Your task to perform on an android device: Go to notification settings Image 0: 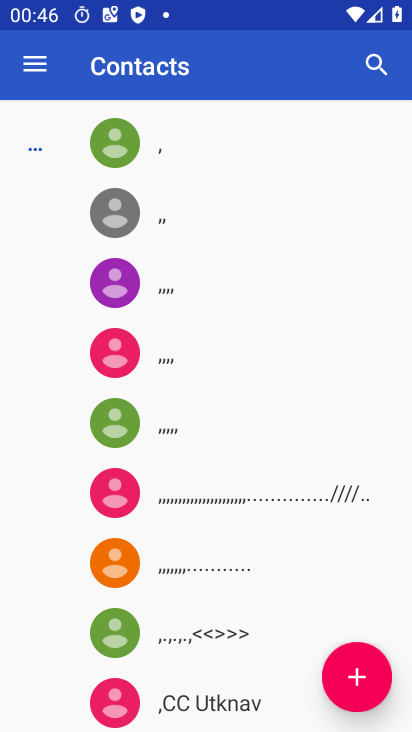
Step 0: press home button
Your task to perform on an android device: Go to notification settings Image 1: 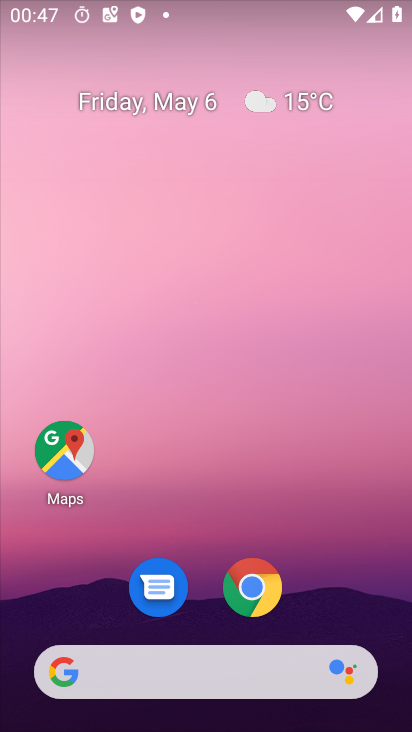
Step 1: drag from (383, 640) to (353, 181)
Your task to perform on an android device: Go to notification settings Image 2: 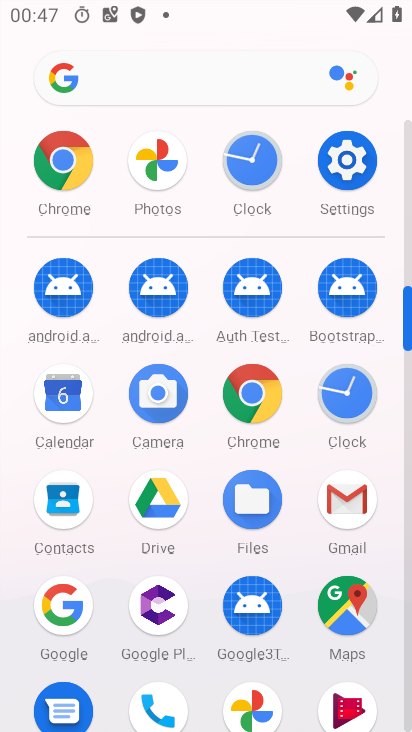
Step 2: click (356, 164)
Your task to perform on an android device: Go to notification settings Image 3: 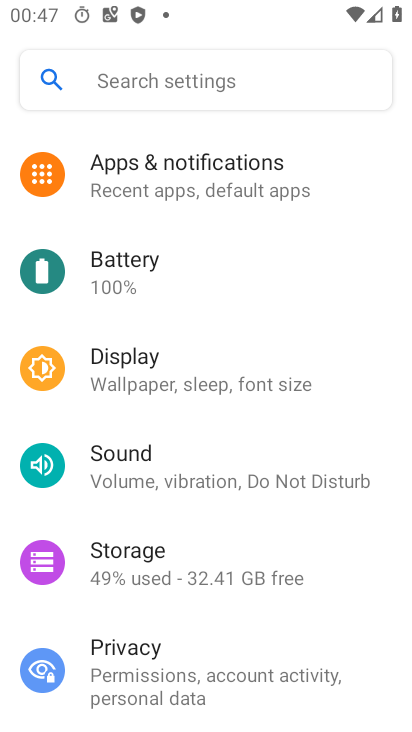
Step 3: click (198, 154)
Your task to perform on an android device: Go to notification settings Image 4: 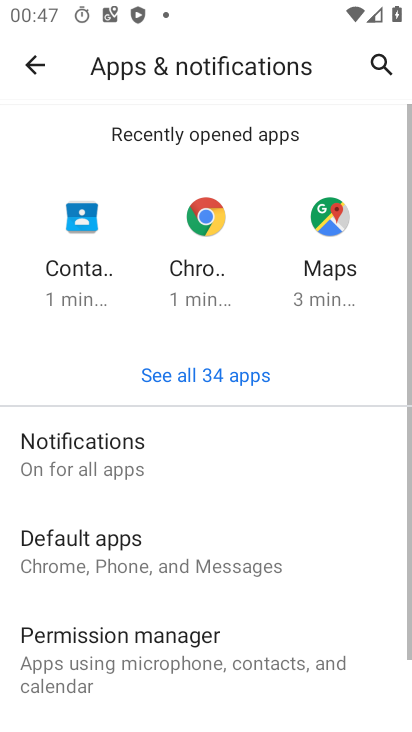
Step 4: click (80, 450)
Your task to perform on an android device: Go to notification settings Image 5: 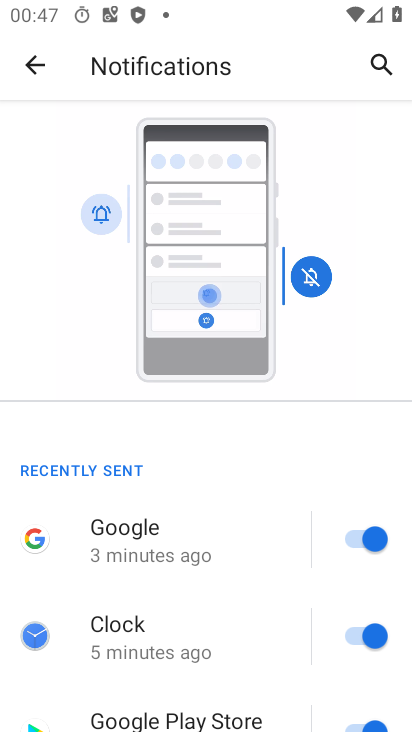
Step 5: task complete